Your task to perform on an android device: Go to accessibility settings Image 0: 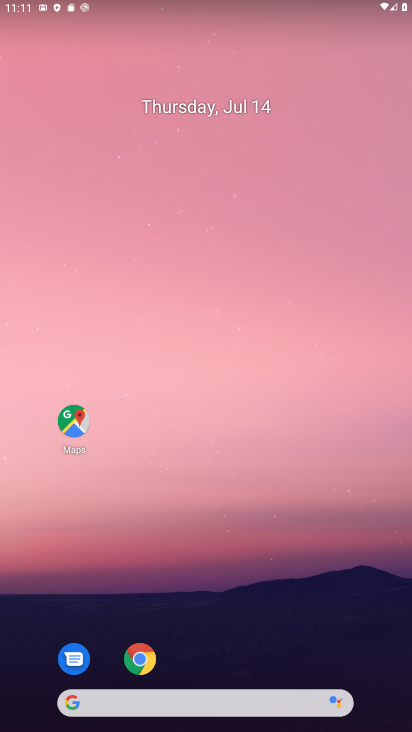
Step 0: drag from (194, 647) to (213, 256)
Your task to perform on an android device: Go to accessibility settings Image 1: 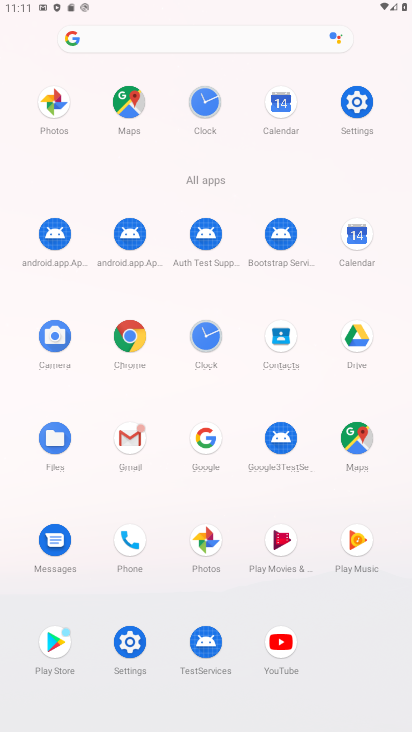
Step 1: click (356, 96)
Your task to perform on an android device: Go to accessibility settings Image 2: 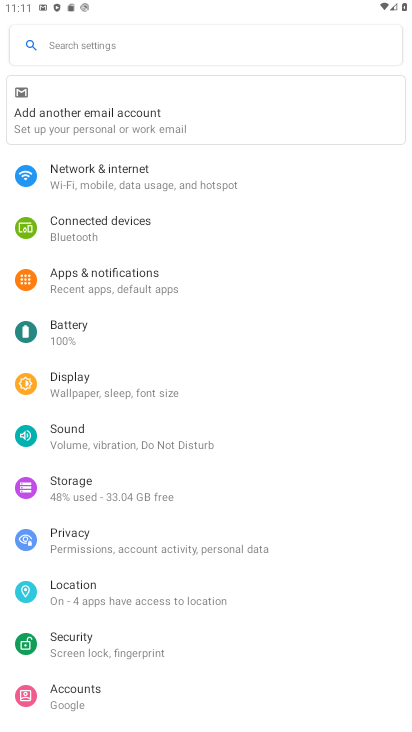
Step 2: drag from (131, 670) to (167, 275)
Your task to perform on an android device: Go to accessibility settings Image 3: 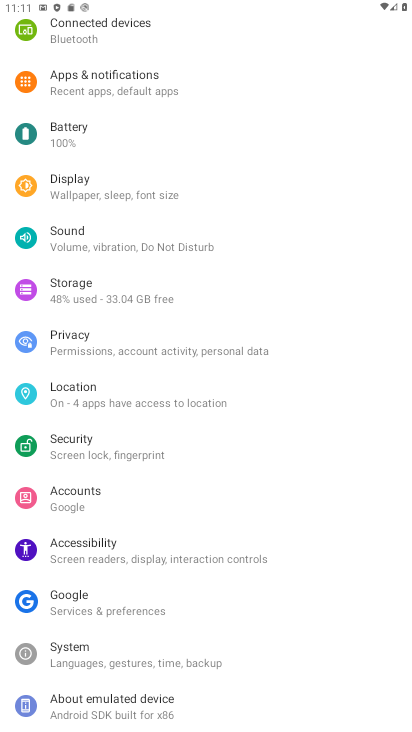
Step 3: click (143, 540)
Your task to perform on an android device: Go to accessibility settings Image 4: 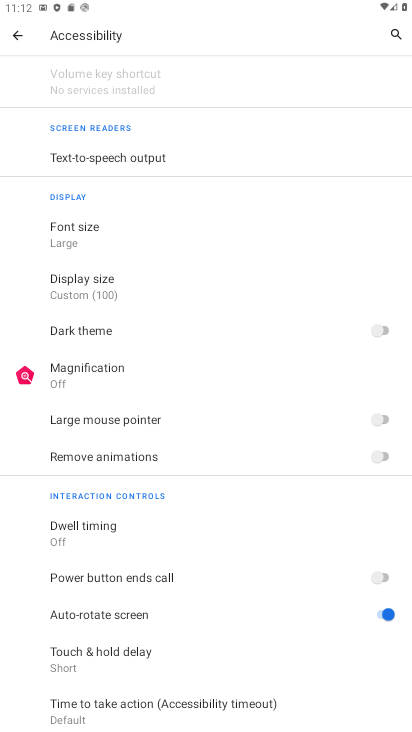
Step 4: task complete